Your task to perform on an android device: When is my next appointment? Image 0: 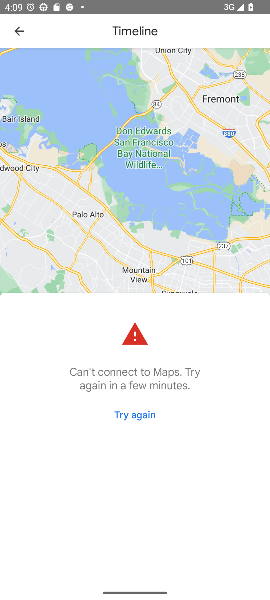
Step 0: press home button
Your task to perform on an android device: When is my next appointment? Image 1: 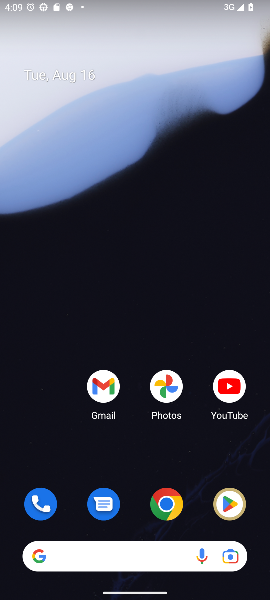
Step 1: drag from (127, 473) to (134, 33)
Your task to perform on an android device: When is my next appointment? Image 2: 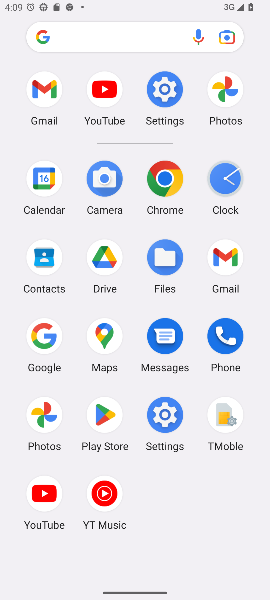
Step 2: click (38, 172)
Your task to perform on an android device: When is my next appointment? Image 3: 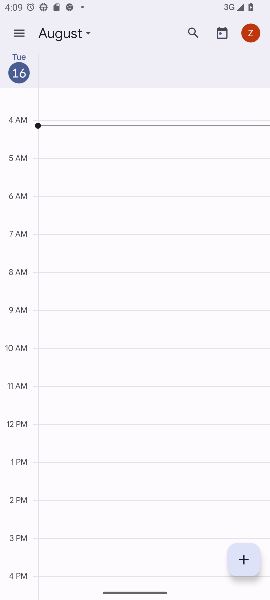
Step 3: task complete